Your task to perform on an android device: check battery use Image 0: 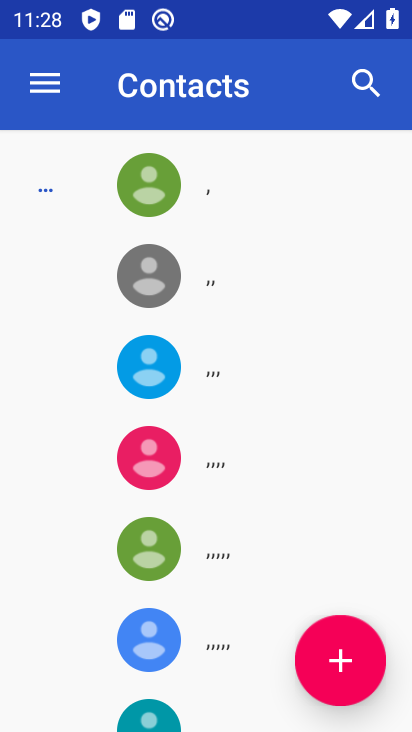
Step 0: press home button
Your task to perform on an android device: check battery use Image 1: 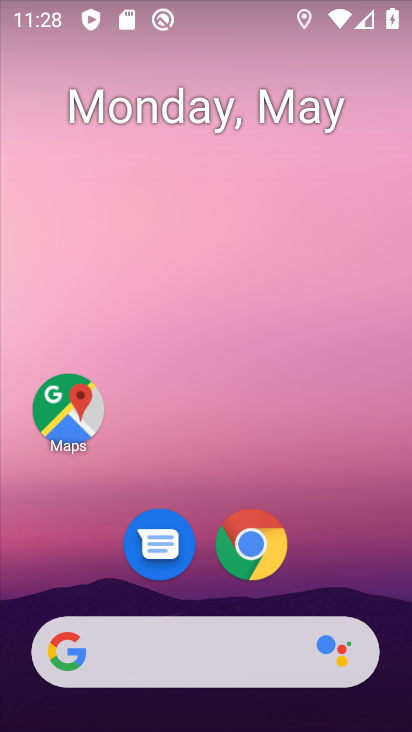
Step 1: drag from (278, 456) to (178, 22)
Your task to perform on an android device: check battery use Image 2: 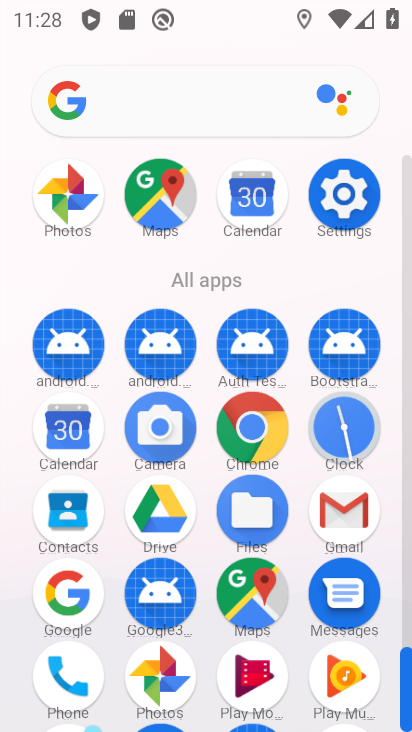
Step 2: click (331, 197)
Your task to perform on an android device: check battery use Image 3: 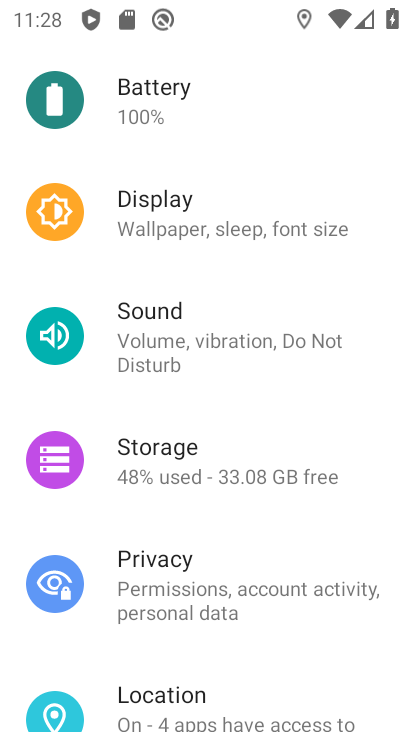
Step 3: click (143, 97)
Your task to perform on an android device: check battery use Image 4: 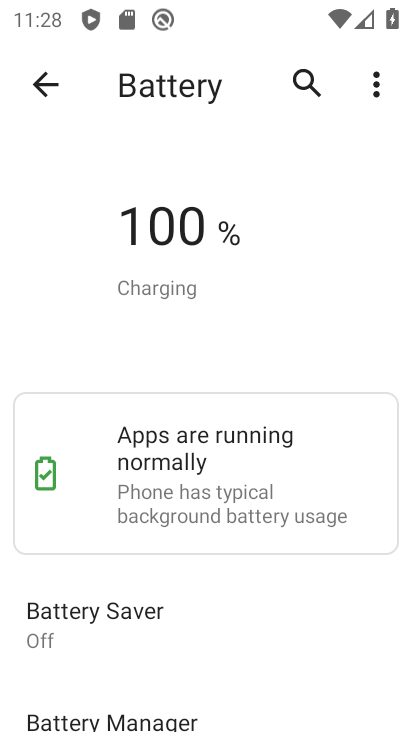
Step 4: task complete